Your task to perform on an android device: turn off notifications in google photos Image 0: 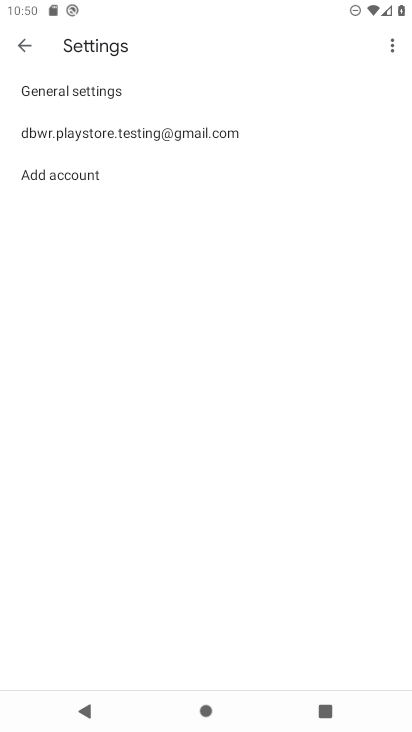
Step 0: press home button
Your task to perform on an android device: turn off notifications in google photos Image 1: 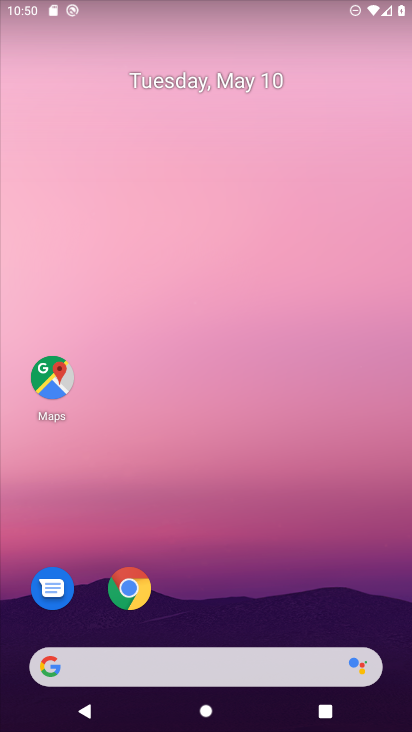
Step 1: drag from (210, 583) to (318, 36)
Your task to perform on an android device: turn off notifications in google photos Image 2: 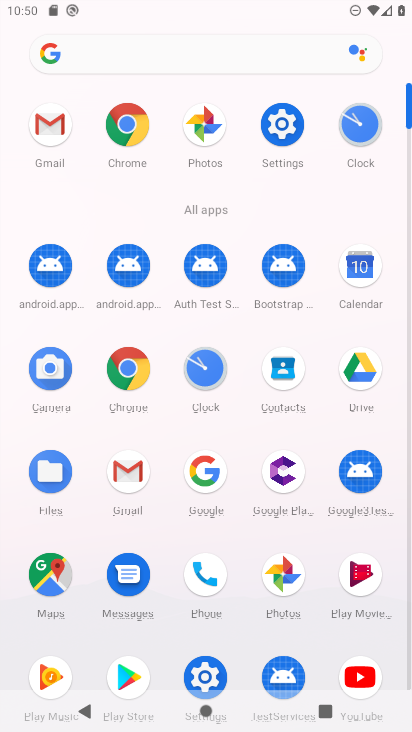
Step 2: click (191, 120)
Your task to perform on an android device: turn off notifications in google photos Image 3: 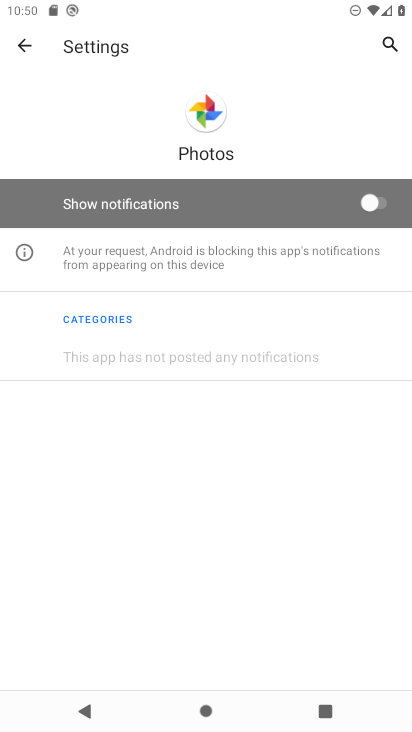
Step 3: task complete